Your task to perform on an android device: Open Google Chrome and open the bookmarks view Image 0: 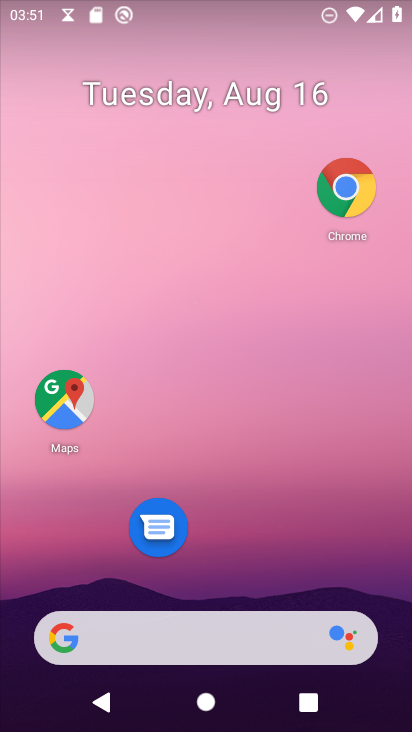
Step 0: press home button
Your task to perform on an android device: Open Google Chrome and open the bookmarks view Image 1: 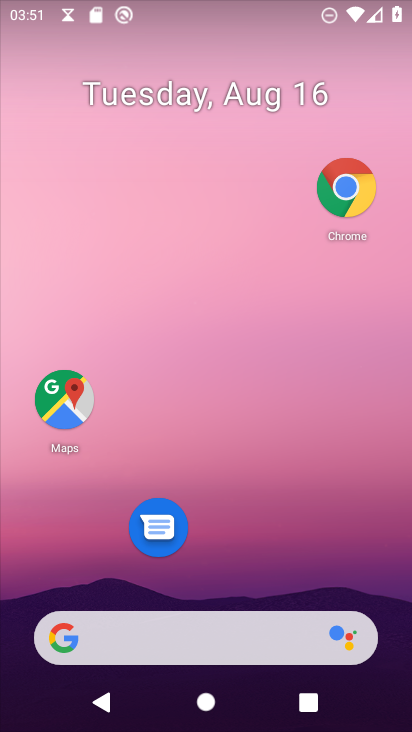
Step 1: drag from (217, 590) to (212, 4)
Your task to perform on an android device: Open Google Chrome and open the bookmarks view Image 2: 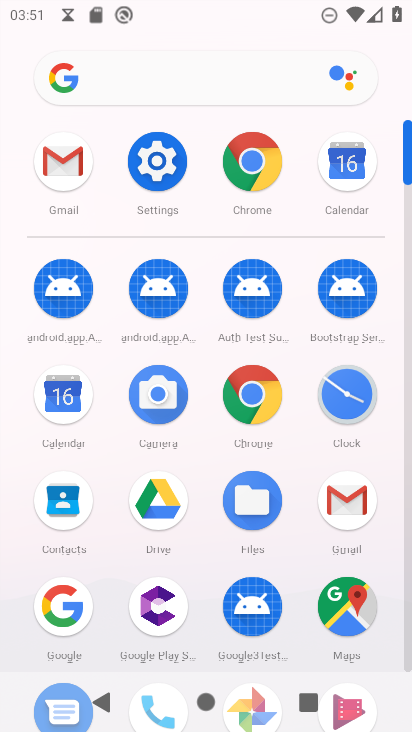
Step 2: click (251, 387)
Your task to perform on an android device: Open Google Chrome and open the bookmarks view Image 3: 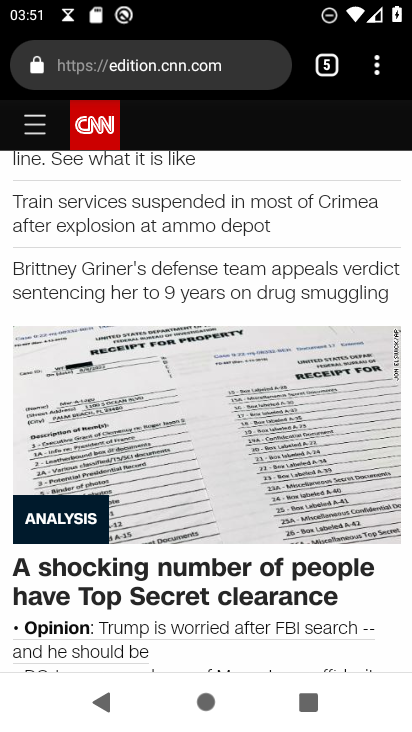
Step 3: click (375, 65)
Your task to perform on an android device: Open Google Chrome and open the bookmarks view Image 4: 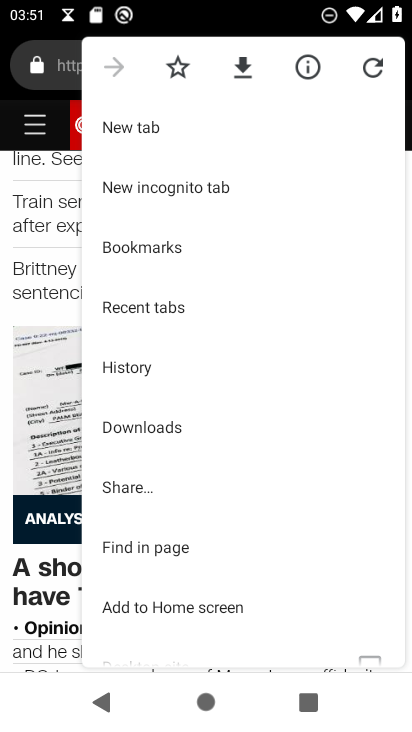
Step 4: click (191, 239)
Your task to perform on an android device: Open Google Chrome and open the bookmarks view Image 5: 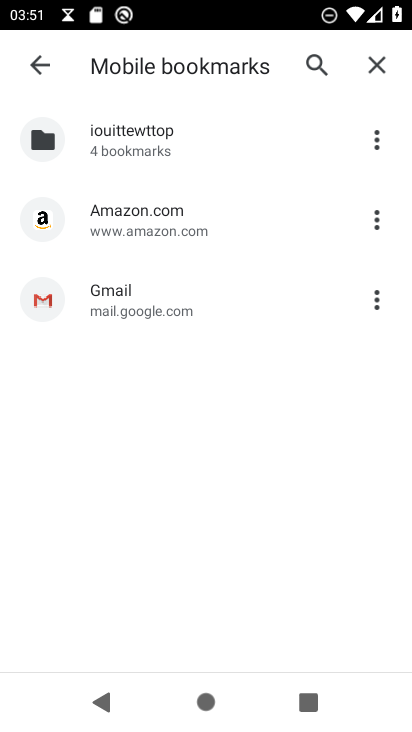
Step 5: task complete